Your task to perform on an android device: Go to Yahoo.com Image 0: 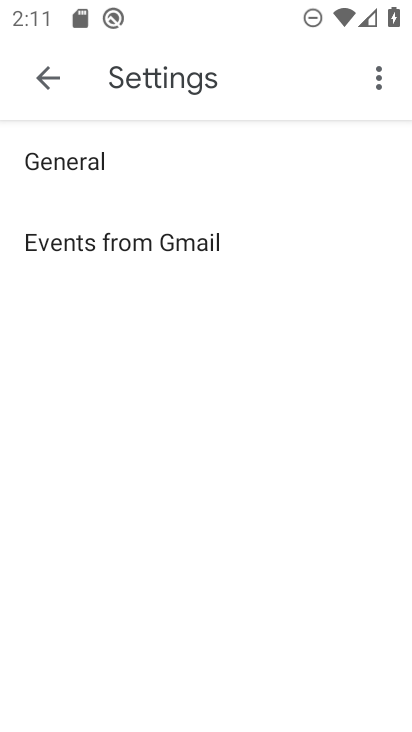
Step 0: press home button
Your task to perform on an android device: Go to Yahoo.com Image 1: 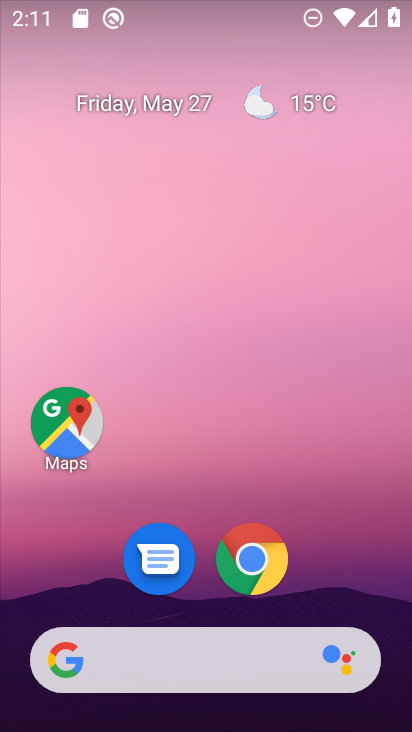
Step 1: drag from (335, 611) to (323, 65)
Your task to perform on an android device: Go to Yahoo.com Image 2: 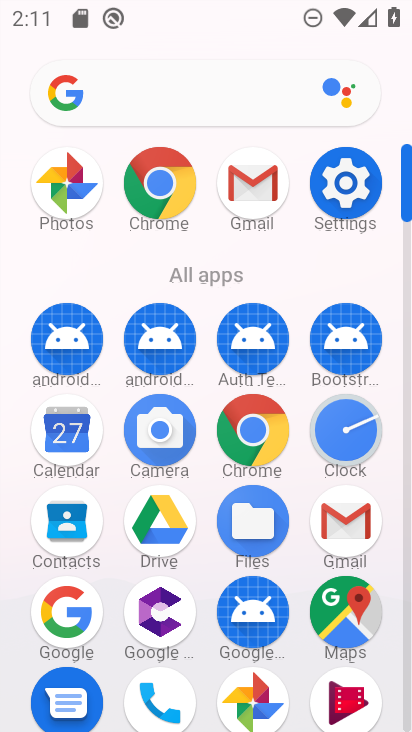
Step 2: click (236, 436)
Your task to perform on an android device: Go to Yahoo.com Image 3: 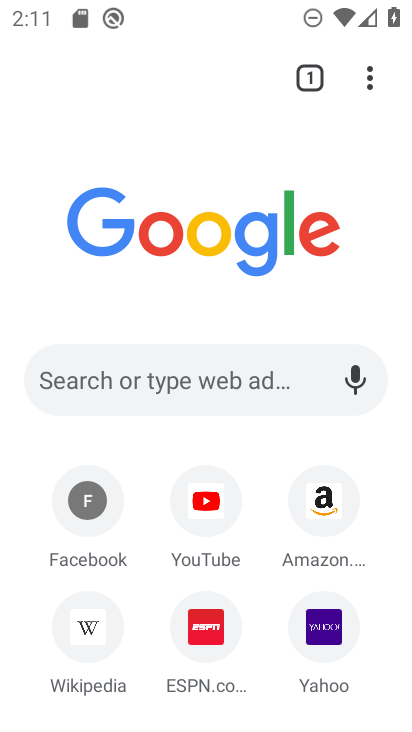
Step 3: click (306, 645)
Your task to perform on an android device: Go to Yahoo.com Image 4: 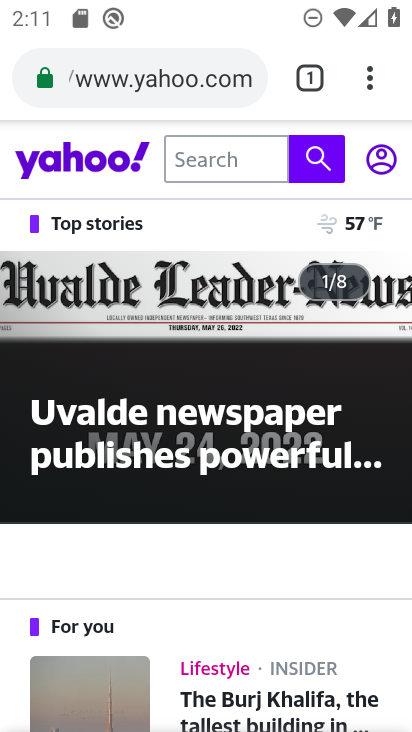
Step 4: task complete